Your task to perform on an android device: Open Google Maps and go to "Timeline" Image 0: 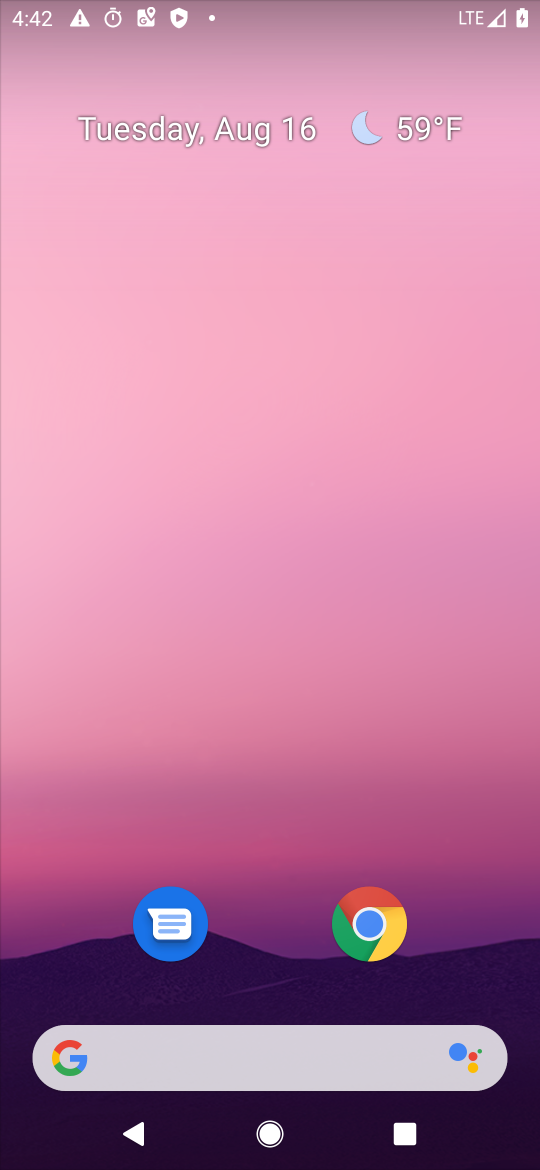
Step 0: drag from (267, 984) to (342, 201)
Your task to perform on an android device: Open Google Maps and go to "Timeline" Image 1: 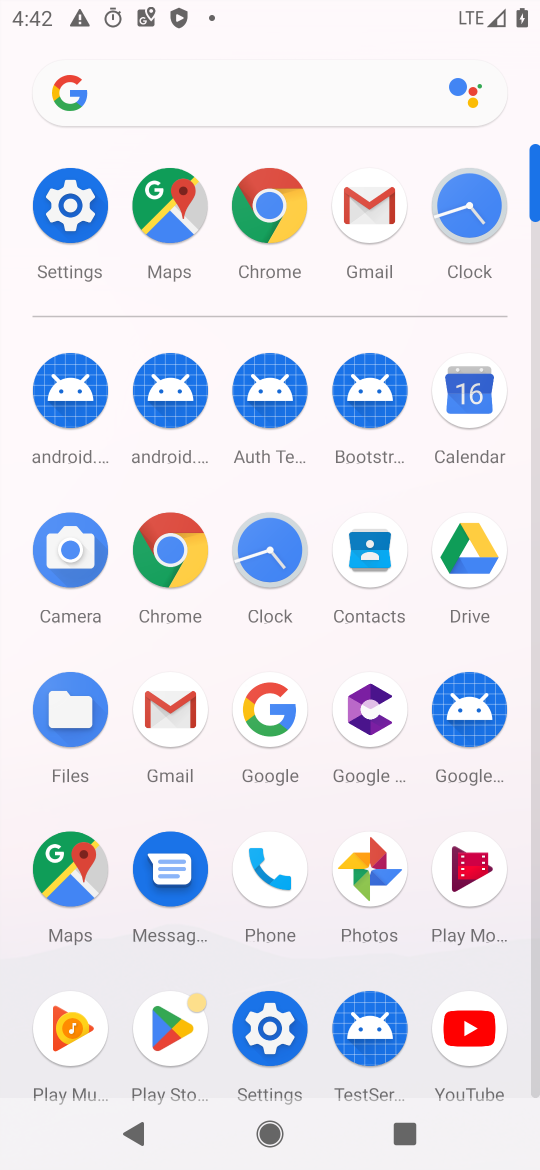
Step 1: click (154, 241)
Your task to perform on an android device: Open Google Maps and go to "Timeline" Image 2: 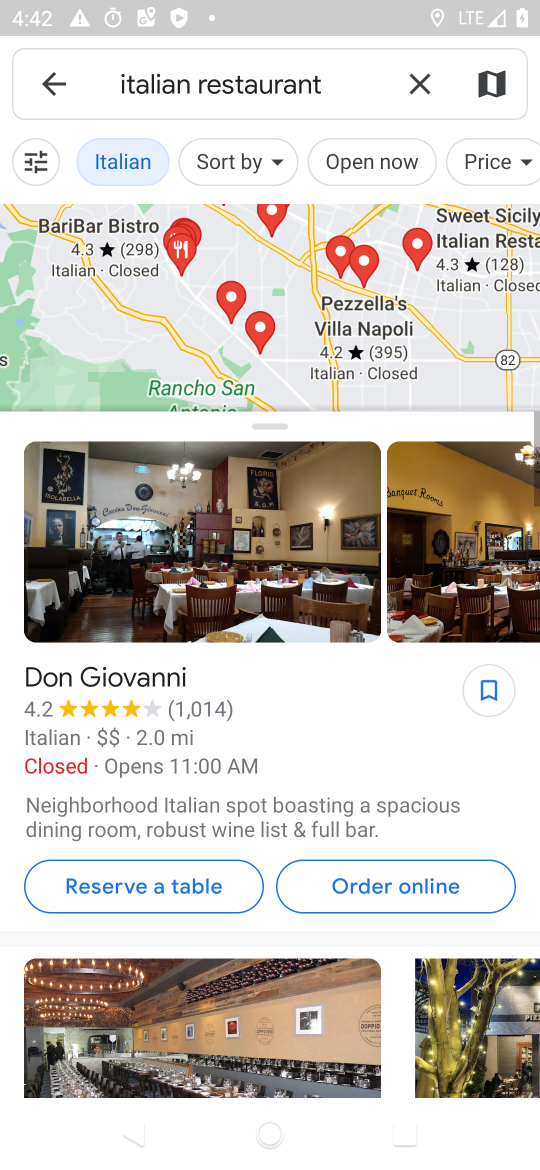
Step 2: click (52, 77)
Your task to perform on an android device: Open Google Maps and go to "Timeline" Image 3: 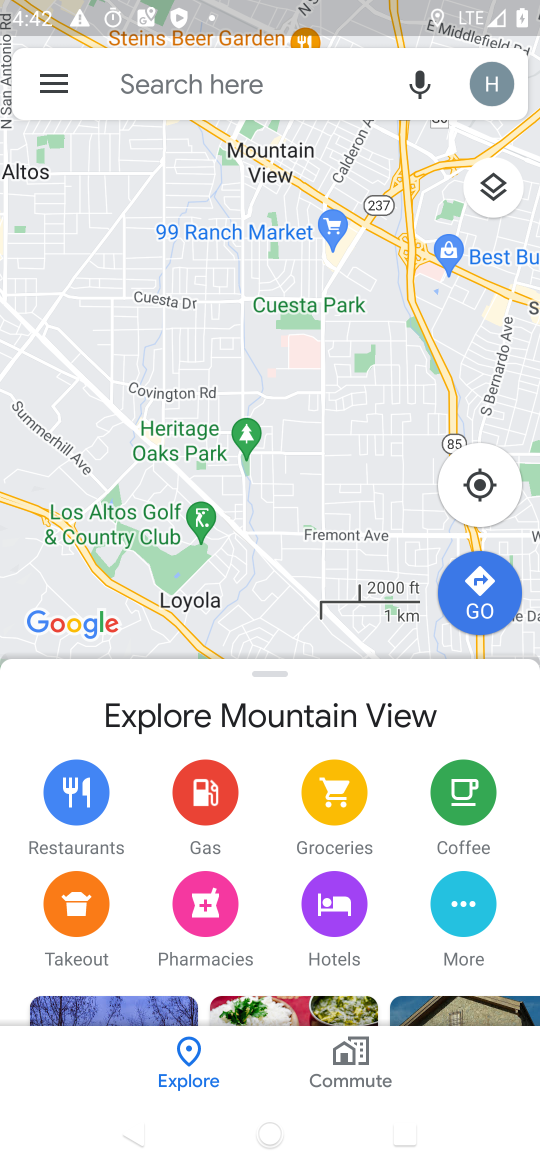
Step 3: click (52, 77)
Your task to perform on an android device: Open Google Maps and go to "Timeline" Image 4: 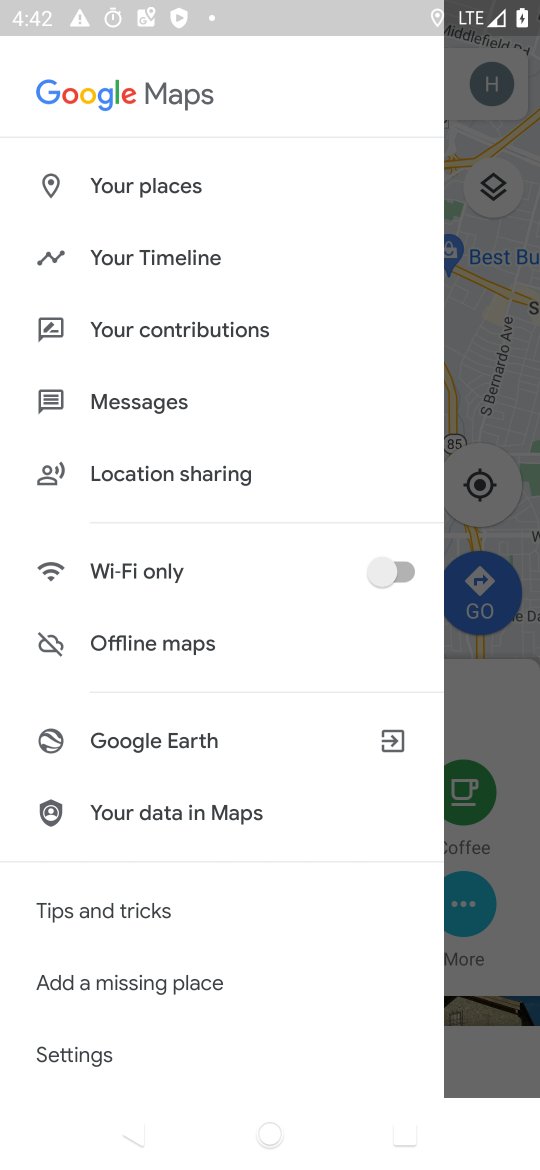
Step 4: click (152, 256)
Your task to perform on an android device: Open Google Maps and go to "Timeline" Image 5: 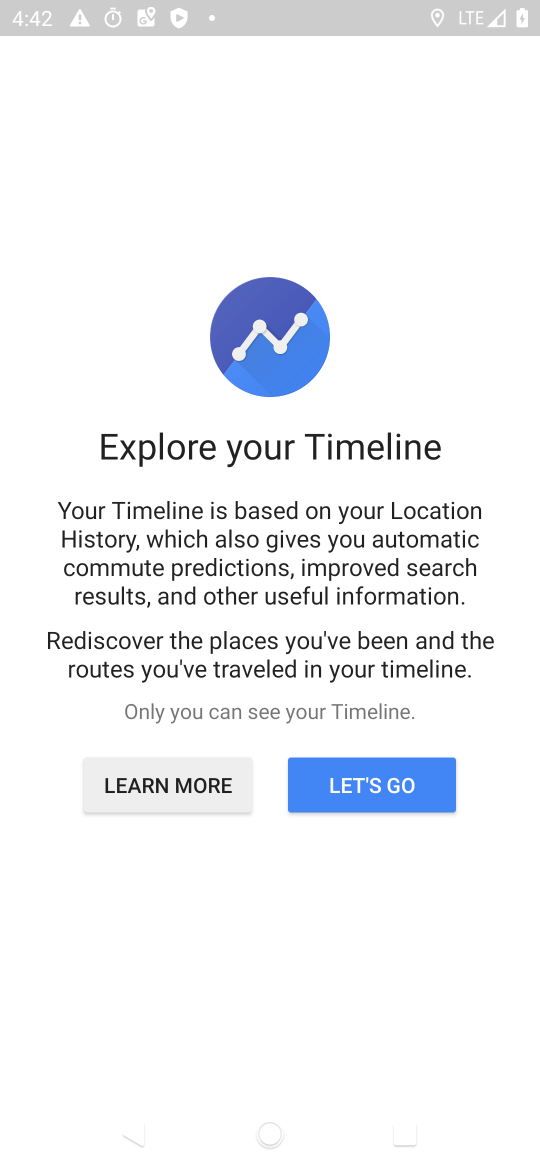
Step 5: click (409, 777)
Your task to perform on an android device: Open Google Maps and go to "Timeline" Image 6: 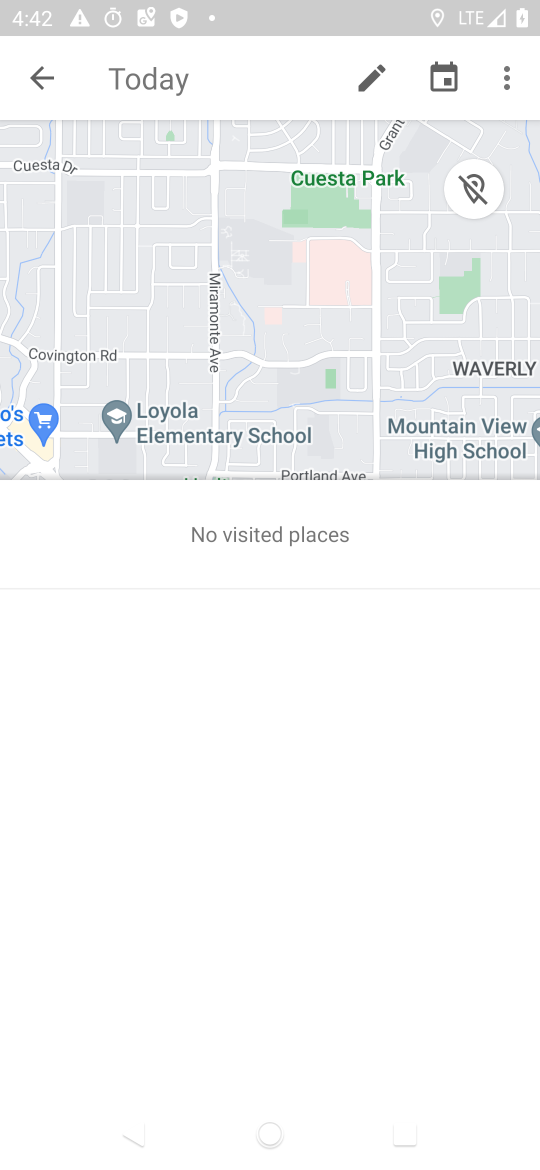
Step 6: task complete